Your task to perform on an android device: Go to Yahoo.com Image 0: 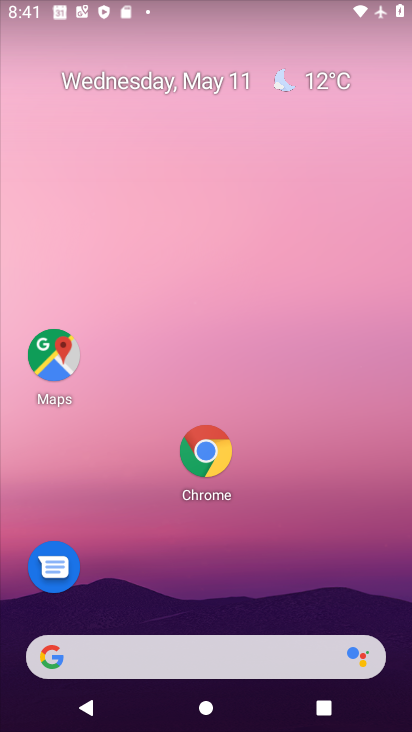
Step 0: press home button
Your task to perform on an android device: Go to Yahoo.com Image 1: 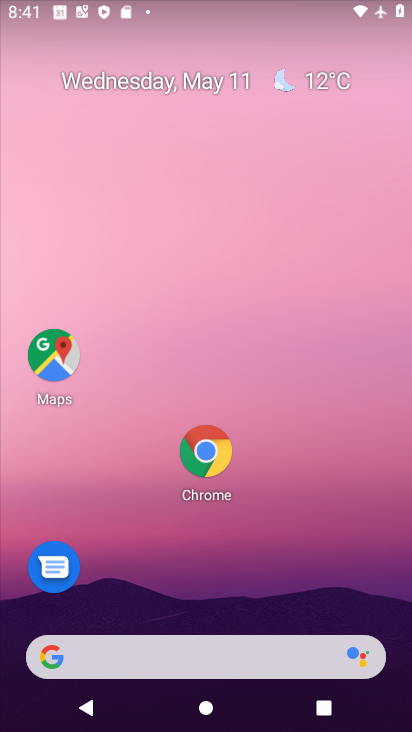
Step 1: click (212, 453)
Your task to perform on an android device: Go to Yahoo.com Image 2: 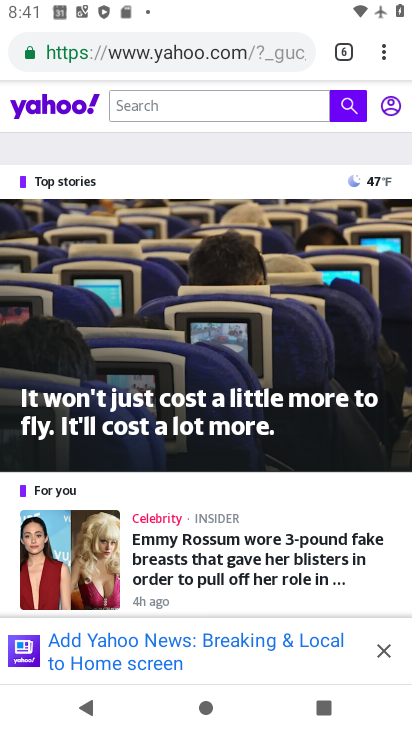
Step 2: task complete